Your task to perform on an android device: turn off notifications settings in the gmail app Image 0: 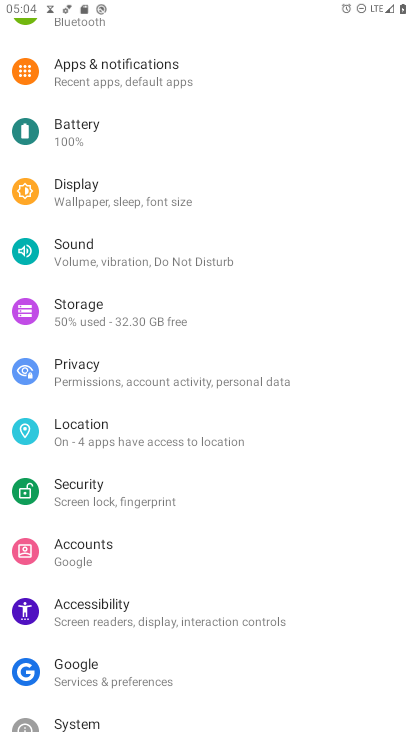
Step 0: press home button
Your task to perform on an android device: turn off notifications settings in the gmail app Image 1: 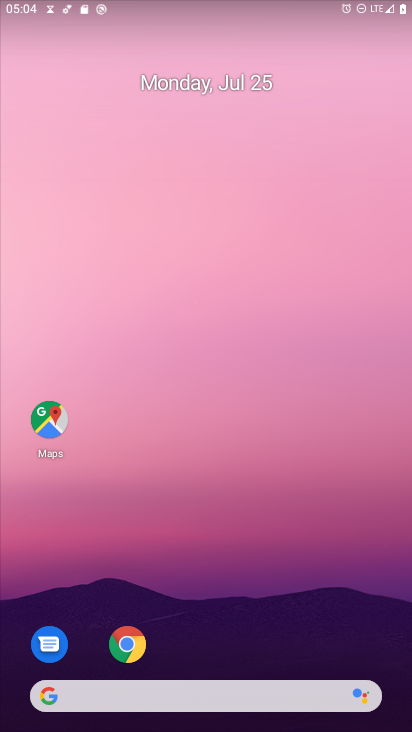
Step 1: drag from (242, 608) to (292, 79)
Your task to perform on an android device: turn off notifications settings in the gmail app Image 2: 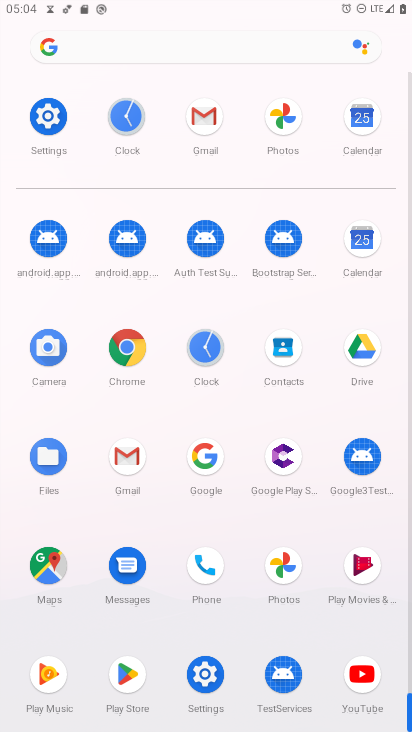
Step 2: click (193, 117)
Your task to perform on an android device: turn off notifications settings in the gmail app Image 3: 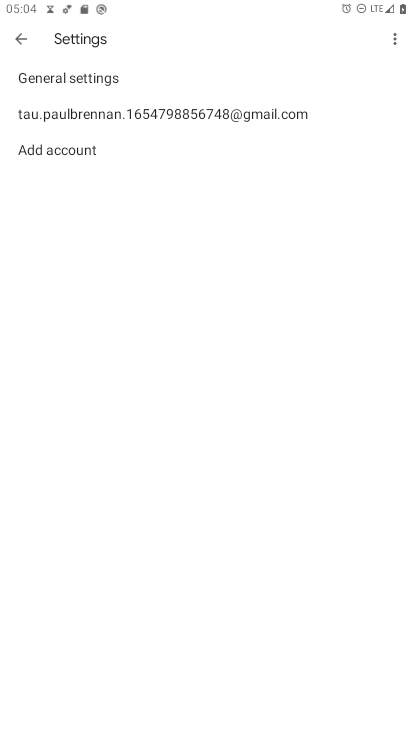
Step 3: click (14, 39)
Your task to perform on an android device: turn off notifications settings in the gmail app Image 4: 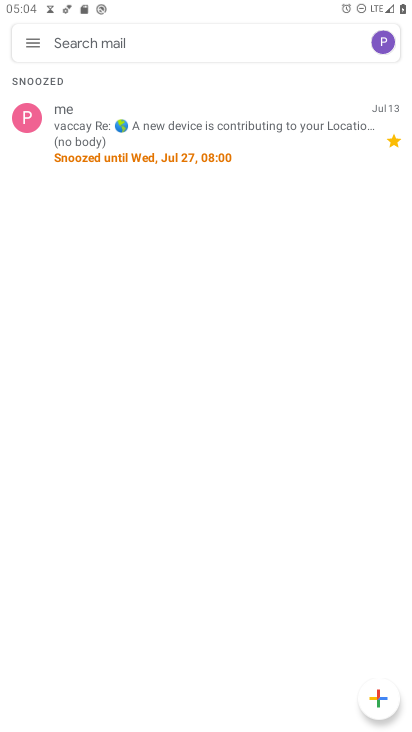
Step 4: click (31, 38)
Your task to perform on an android device: turn off notifications settings in the gmail app Image 5: 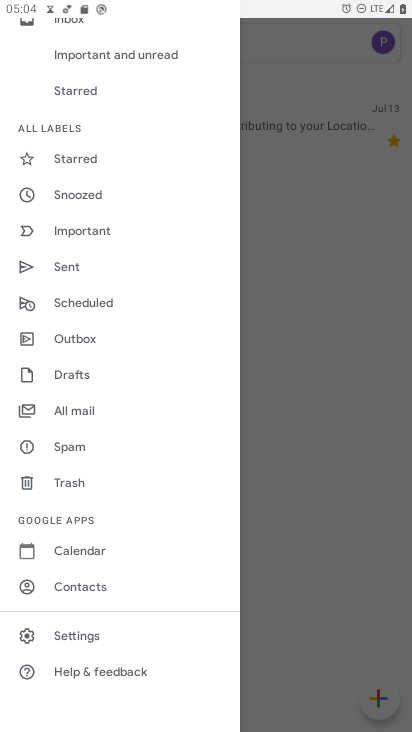
Step 5: click (96, 635)
Your task to perform on an android device: turn off notifications settings in the gmail app Image 6: 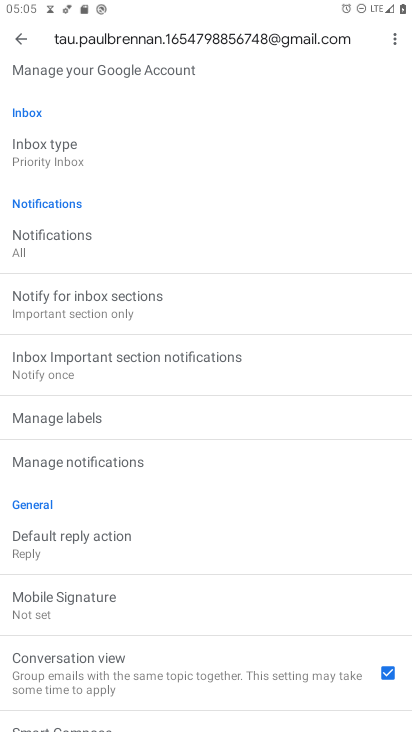
Step 6: click (112, 464)
Your task to perform on an android device: turn off notifications settings in the gmail app Image 7: 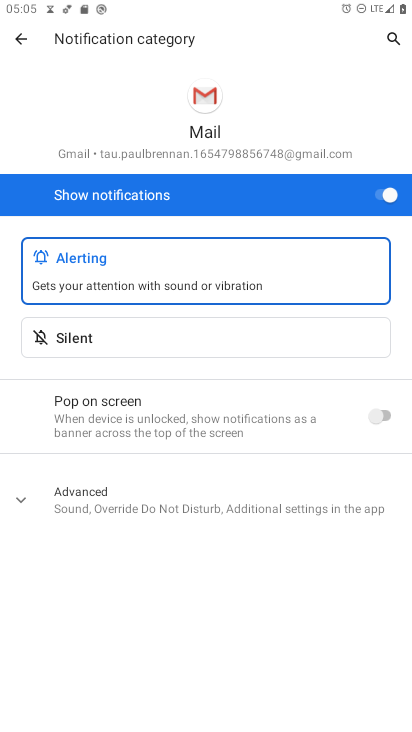
Step 7: click (383, 202)
Your task to perform on an android device: turn off notifications settings in the gmail app Image 8: 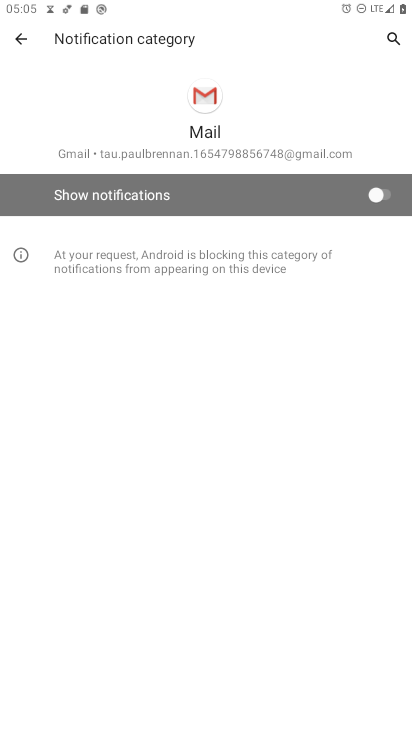
Step 8: task complete